Your task to perform on an android device: Do I have any events tomorrow? Image 0: 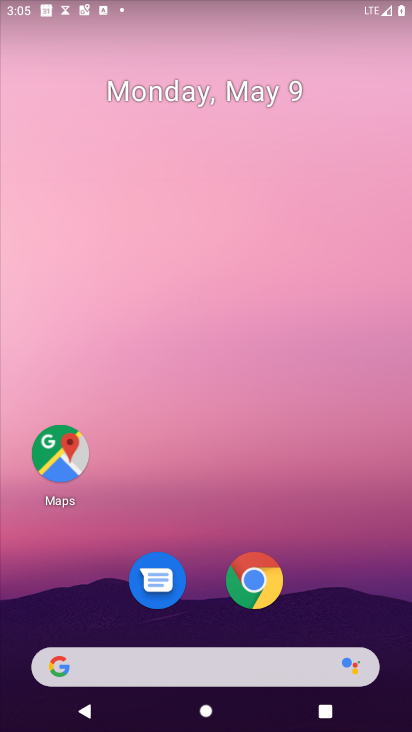
Step 0: drag from (324, 494) to (252, 184)
Your task to perform on an android device: Do I have any events tomorrow? Image 1: 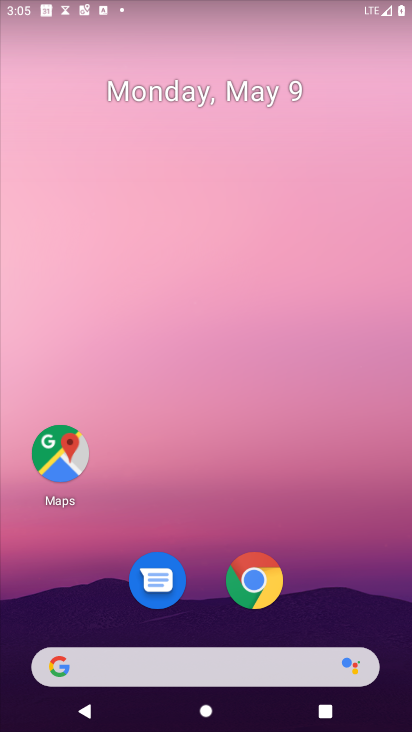
Step 1: drag from (297, 575) to (232, 37)
Your task to perform on an android device: Do I have any events tomorrow? Image 2: 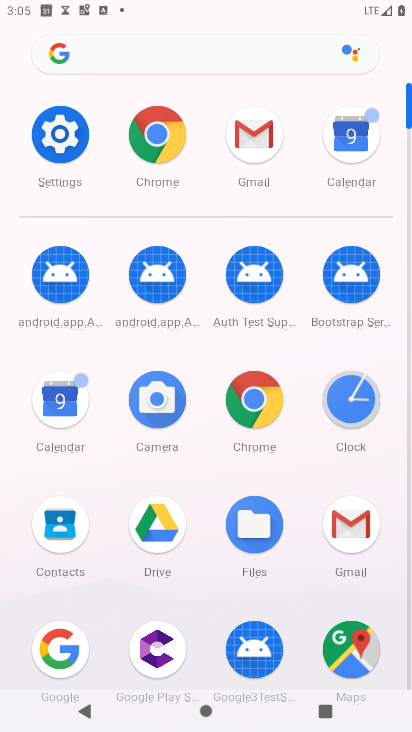
Step 2: click (88, 389)
Your task to perform on an android device: Do I have any events tomorrow? Image 3: 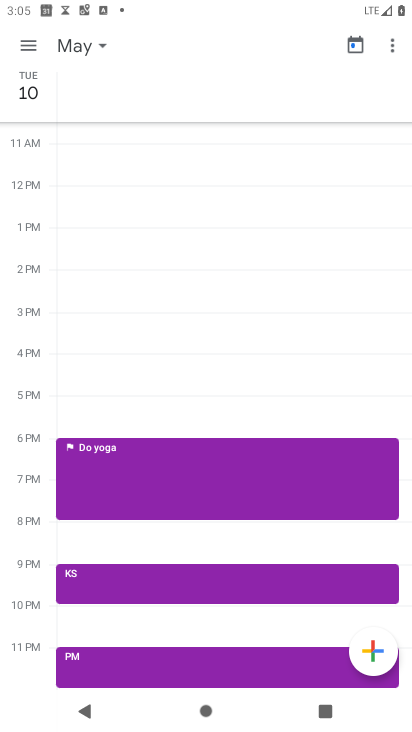
Step 3: drag from (30, 527) to (25, 240)
Your task to perform on an android device: Do I have any events tomorrow? Image 4: 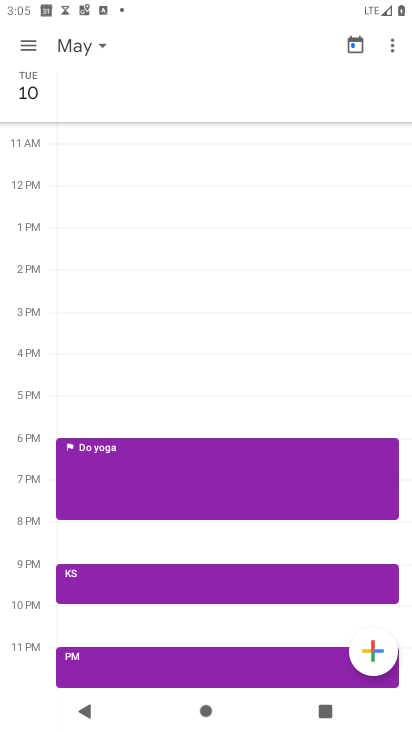
Step 4: drag from (23, 236) to (25, 277)
Your task to perform on an android device: Do I have any events tomorrow? Image 5: 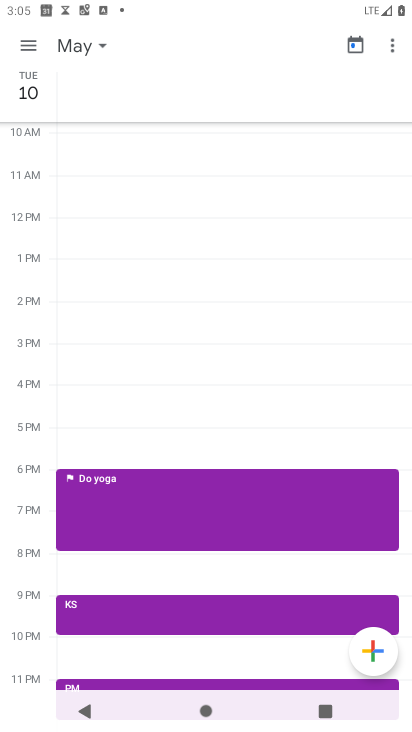
Step 5: click (25, 277)
Your task to perform on an android device: Do I have any events tomorrow? Image 6: 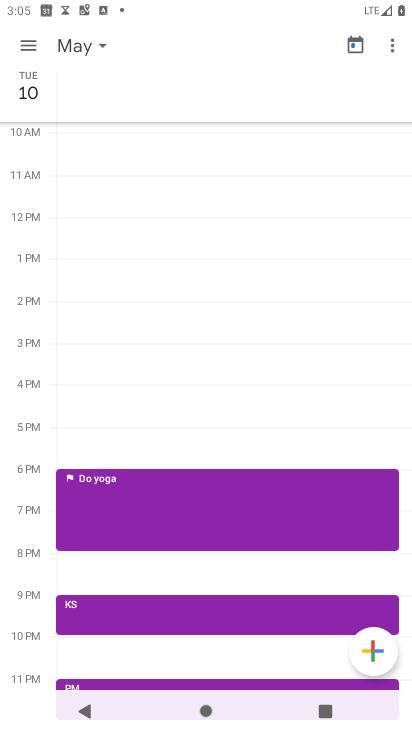
Step 6: task complete